Your task to perform on an android device: toggle notification dots Image 0: 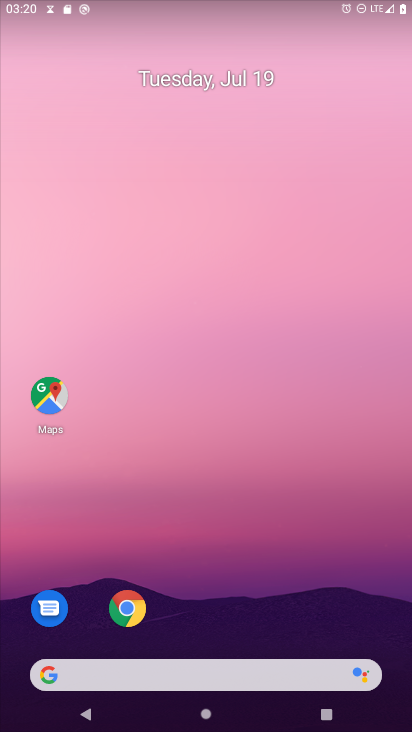
Step 0: drag from (213, 624) to (269, 93)
Your task to perform on an android device: toggle notification dots Image 1: 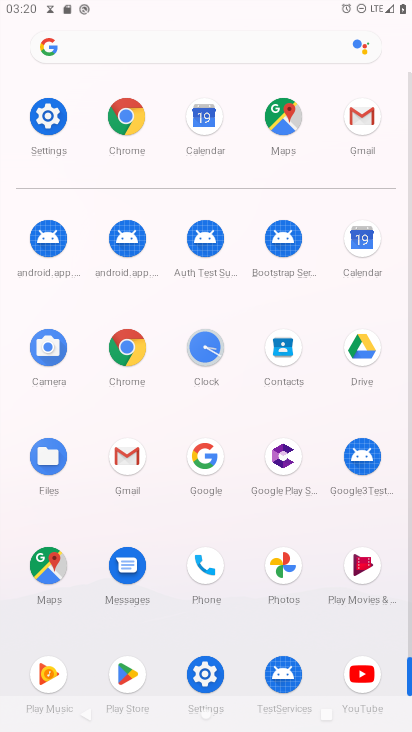
Step 1: click (59, 110)
Your task to perform on an android device: toggle notification dots Image 2: 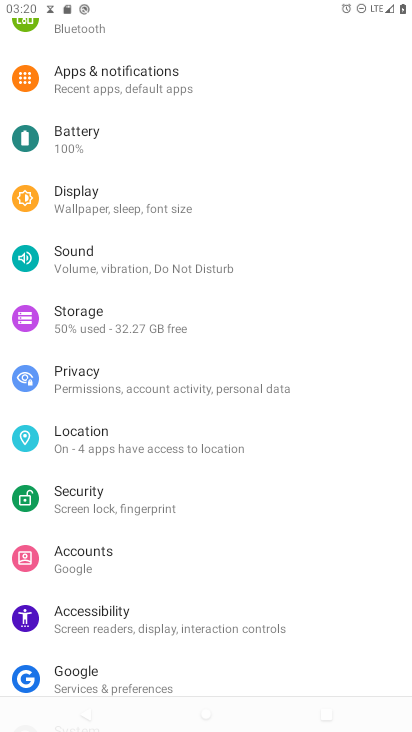
Step 2: click (151, 76)
Your task to perform on an android device: toggle notification dots Image 3: 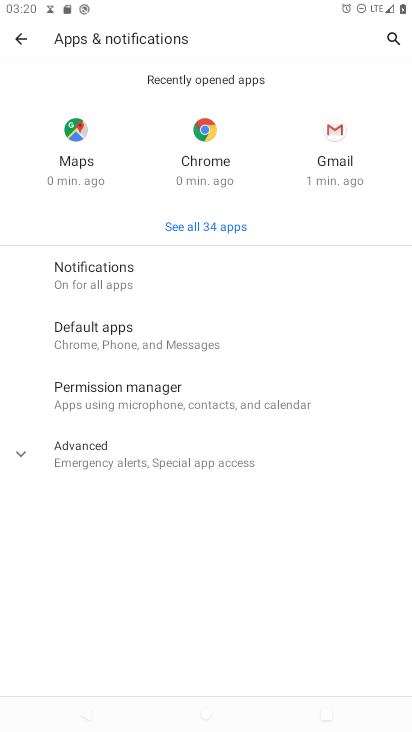
Step 3: click (127, 277)
Your task to perform on an android device: toggle notification dots Image 4: 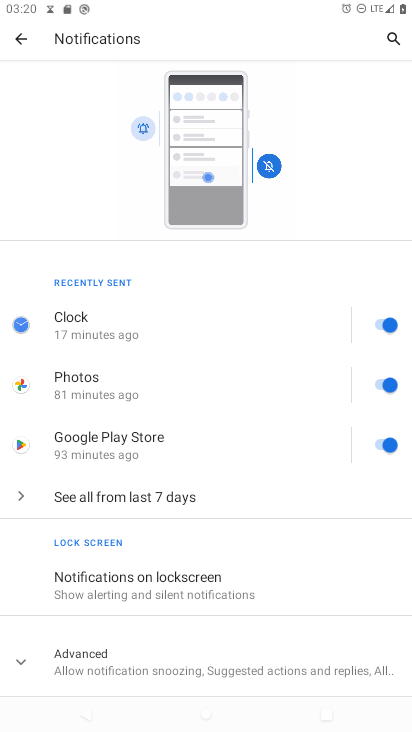
Step 4: click (216, 669)
Your task to perform on an android device: toggle notification dots Image 5: 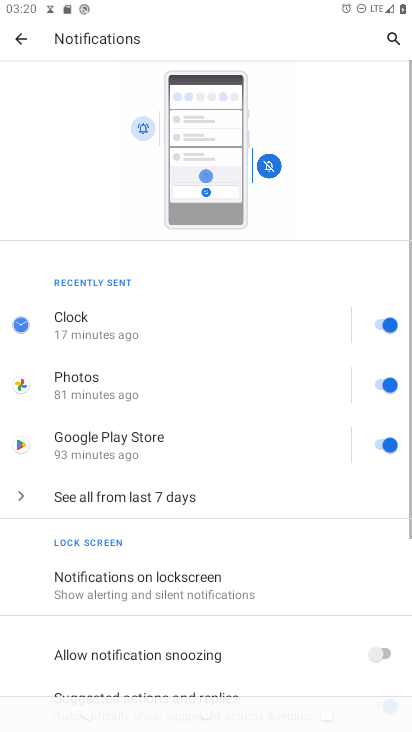
Step 5: drag from (216, 669) to (244, 382)
Your task to perform on an android device: toggle notification dots Image 6: 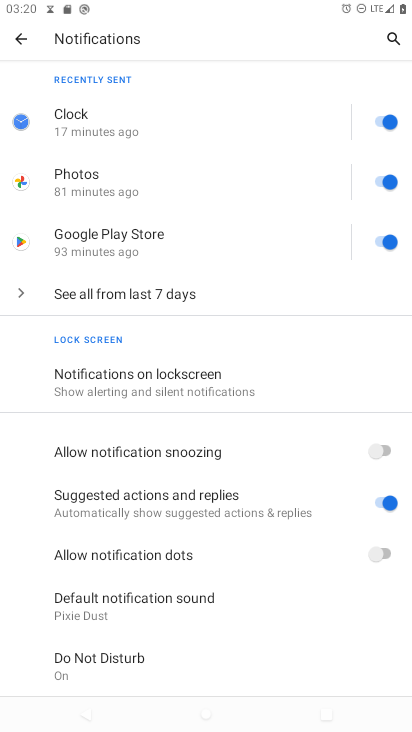
Step 6: click (382, 550)
Your task to perform on an android device: toggle notification dots Image 7: 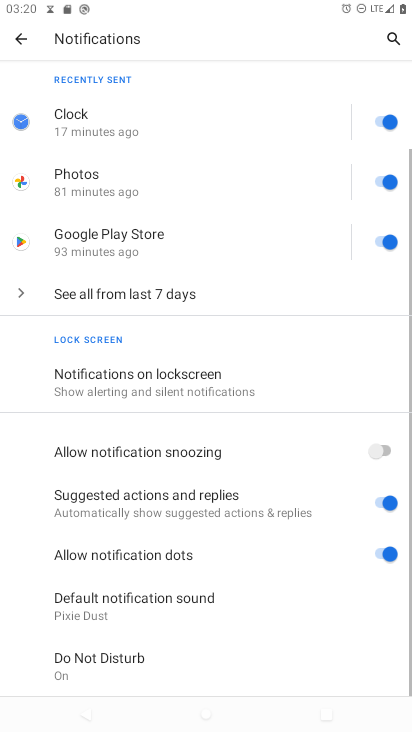
Step 7: task complete